Your task to perform on an android device: Show me some nice wallpapers for my laptop Image 0: 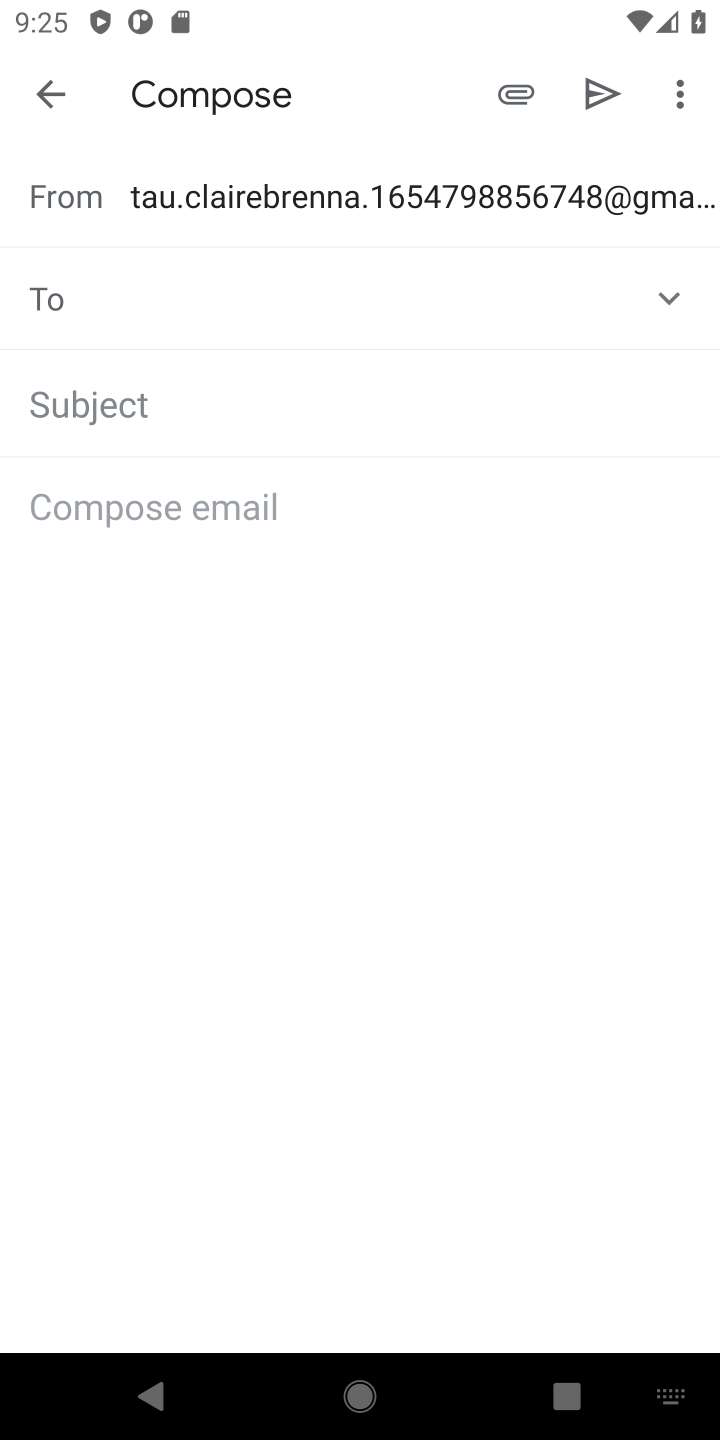
Step 0: press home button
Your task to perform on an android device: Show me some nice wallpapers for my laptop Image 1: 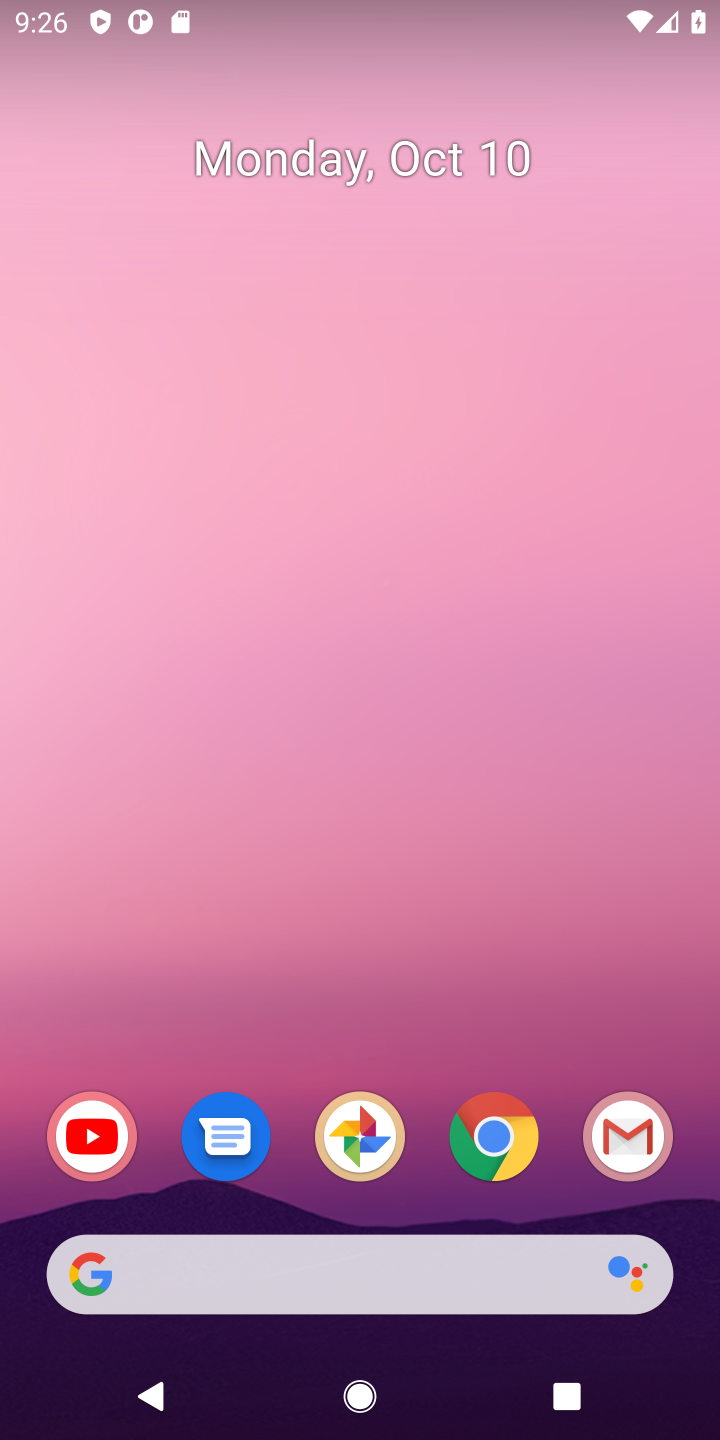
Step 1: click (487, 1143)
Your task to perform on an android device: Show me some nice wallpapers for my laptop Image 2: 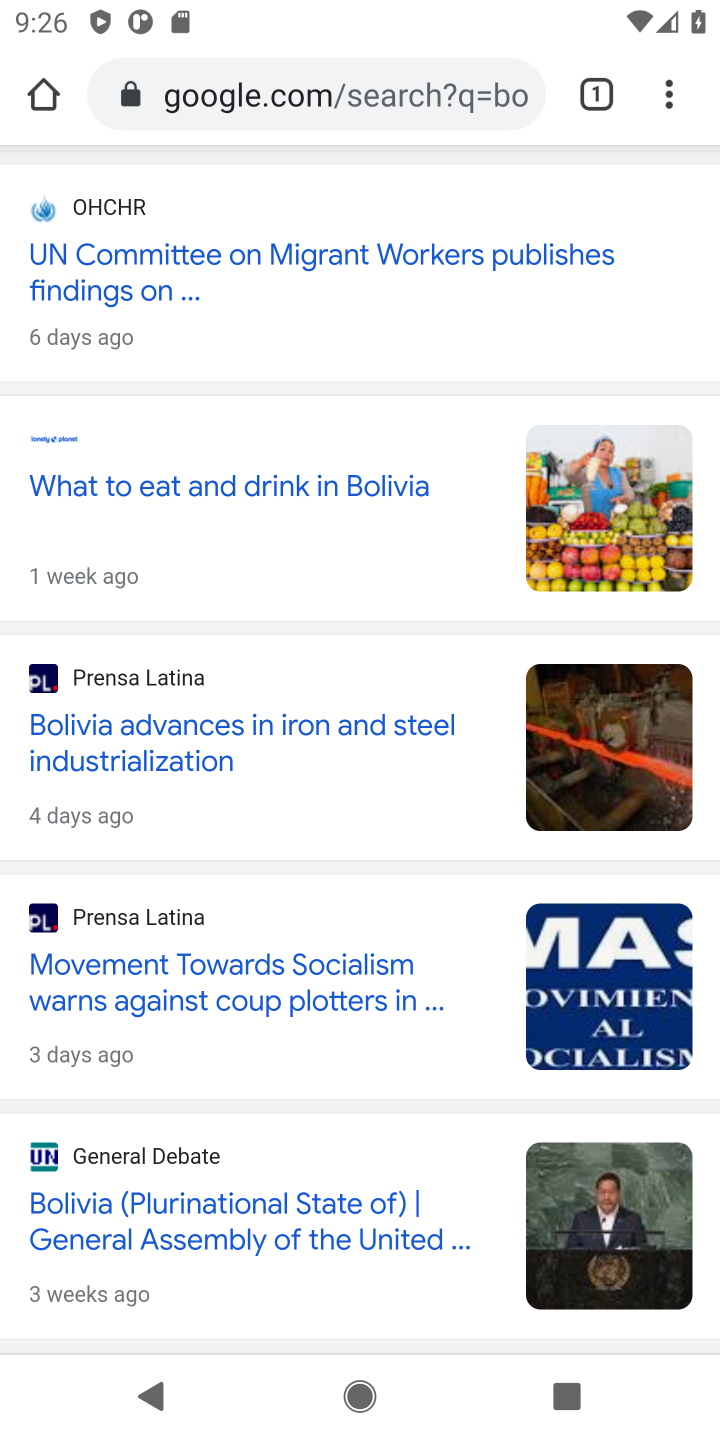
Step 2: click (308, 93)
Your task to perform on an android device: Show me some nice wallpapers for my laptop Image 3: 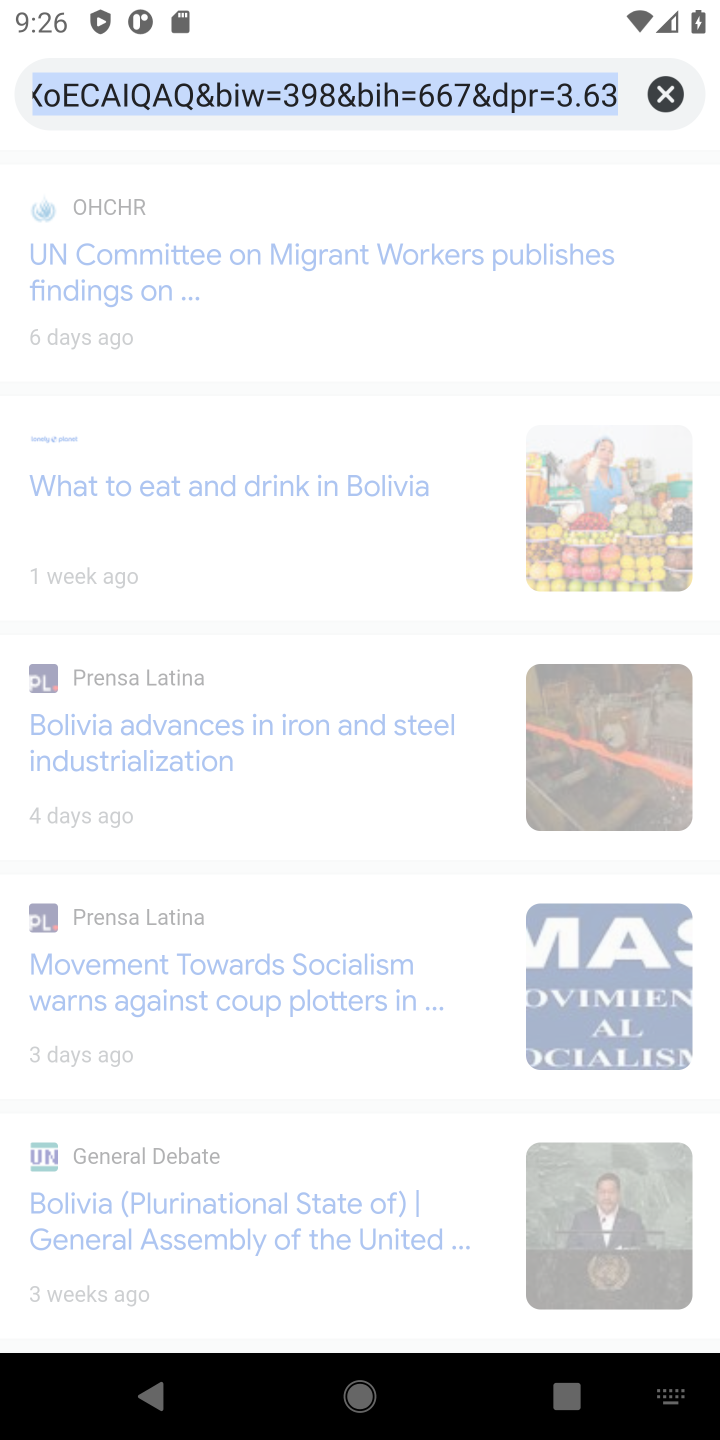
Step 3: type "some nice wallpapers for my laptop"
Your task to perform on an android device: Show me some nice wallpapers for my laptop Image 4: 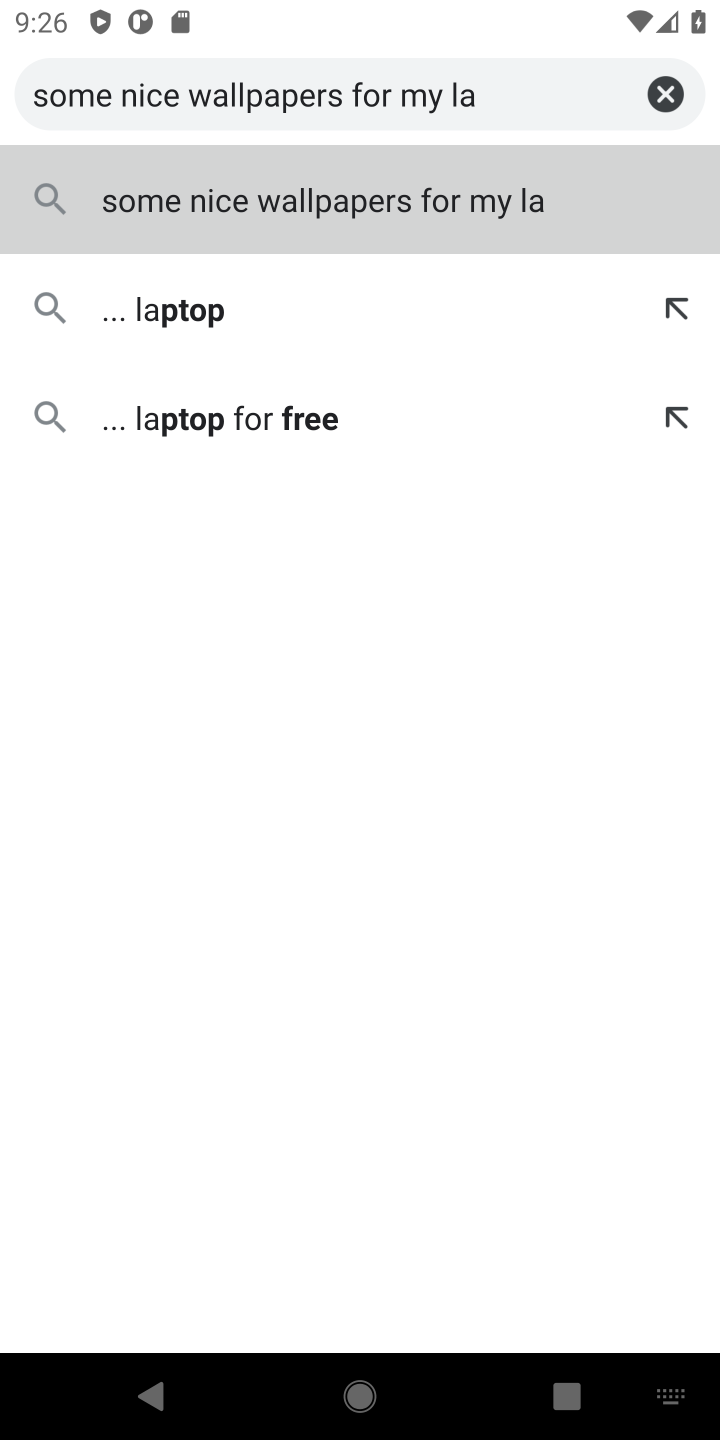
Step 4: type "ptop"
Your task to perform on an android device: Show me some nice wallpapers for my laptop Image 5: 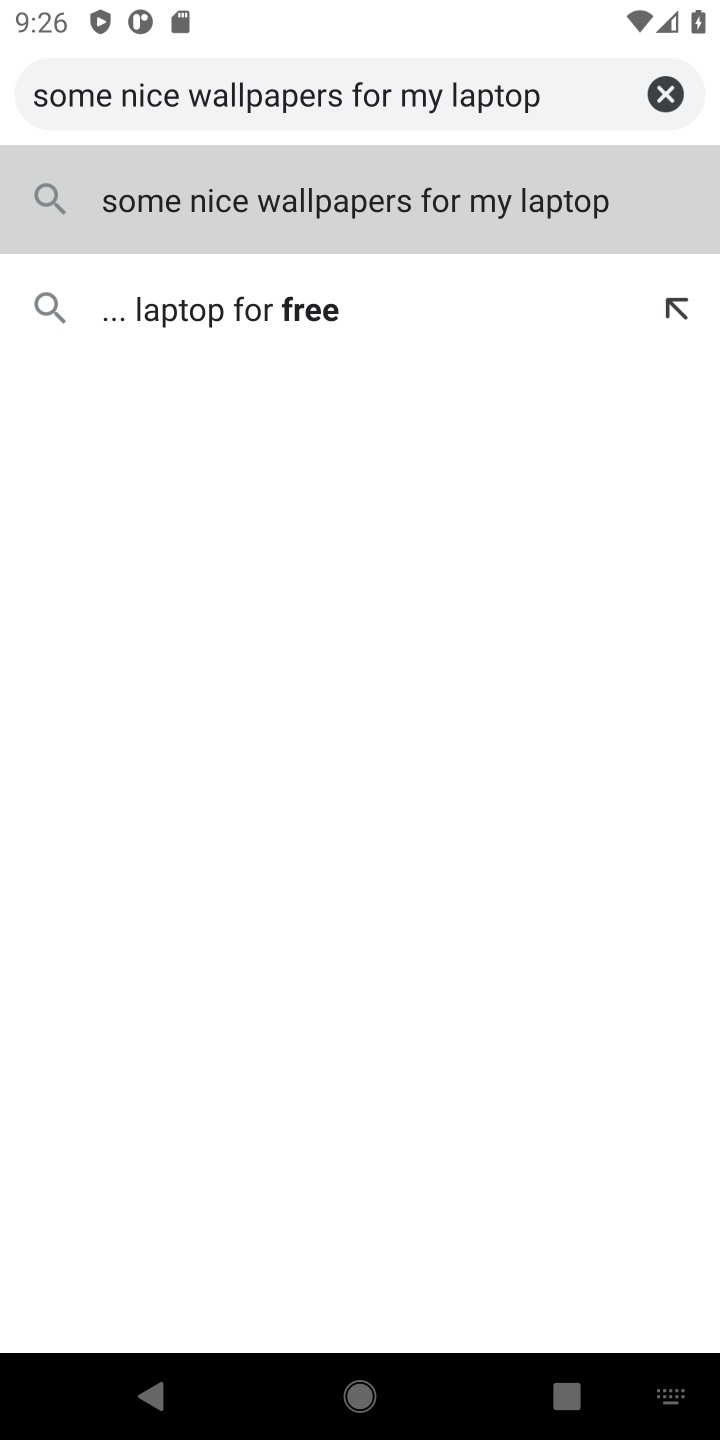
Step 5: press enter
Your task to perform on an android device: Show me some nice wallpapers for my laptop Image 6: 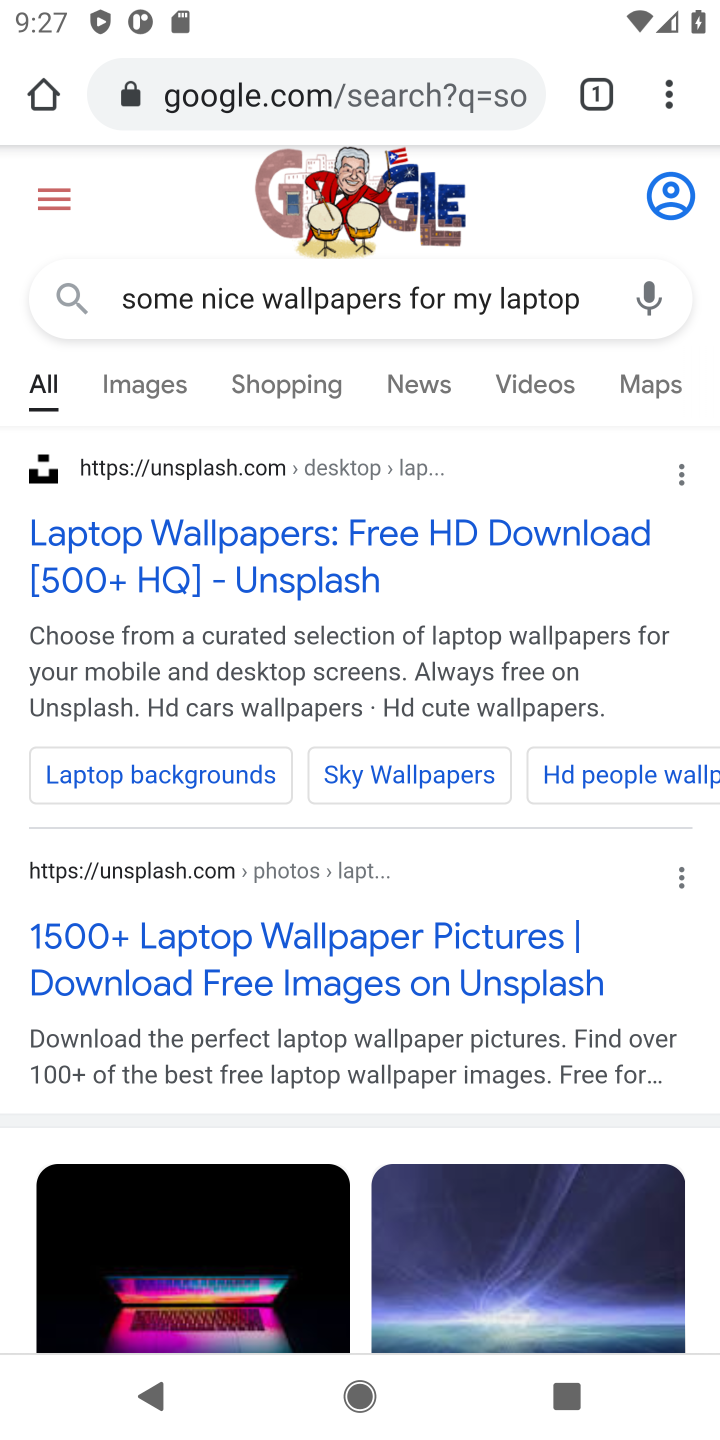
Step 6: click (388, 529)
Your task to perform on an android device: Show me some nice wallpapers for my laptop Image 7: 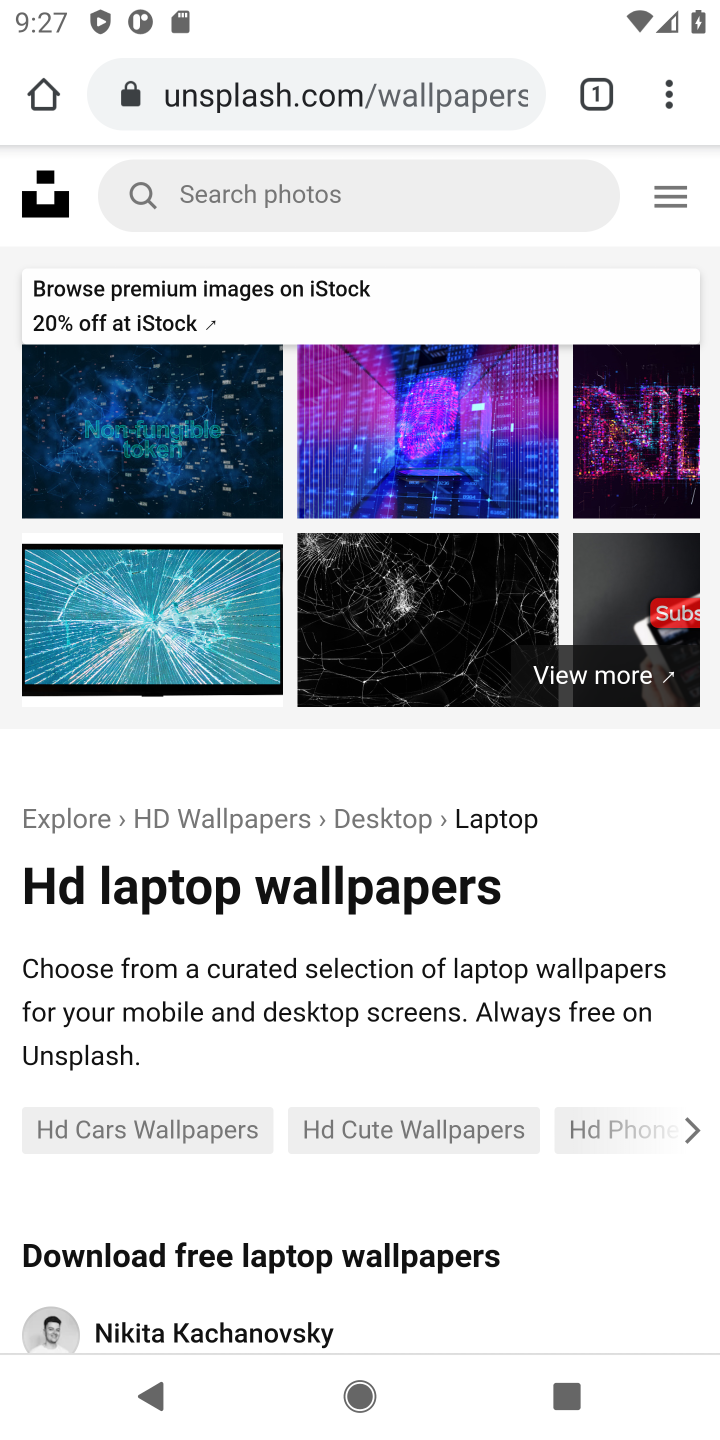
Step 7: task complete